Your task to perform on an android device: toggle location history Image 0: 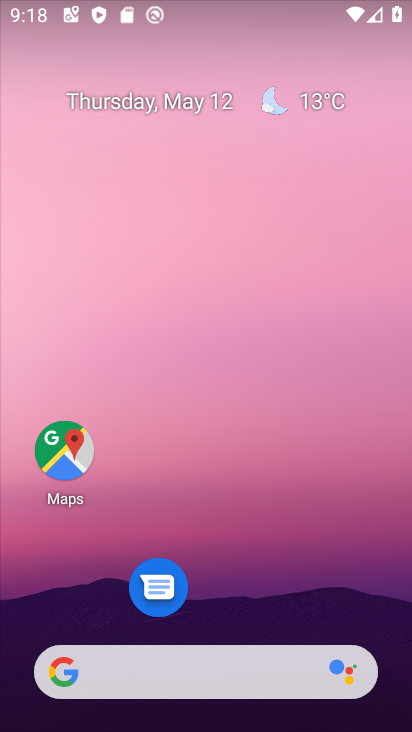
Step 0: drag from (185, 643) to (264, 78)
Your task to perform on an android device: toggle location history Image 1: 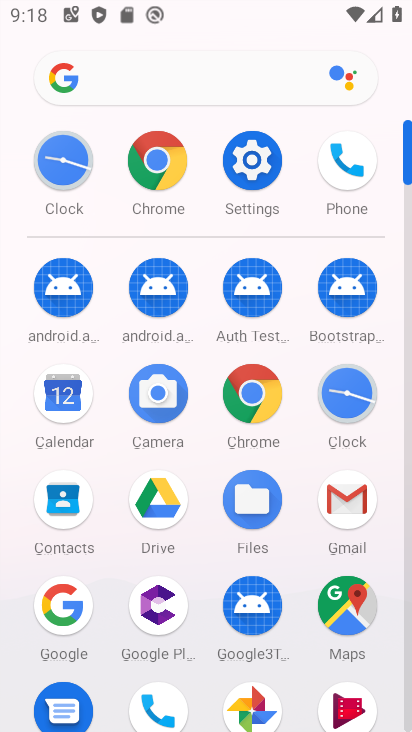
Step 1: click (260, 168)
Your task to perform on an android device: toggle location history Image 2: 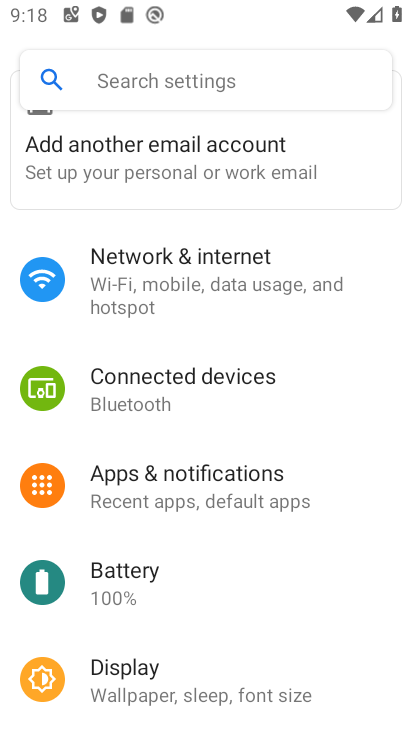
Step 2: drag from (179, 545) to (134, 169)
Your task to perform on an android device: toggle location history Image 3: 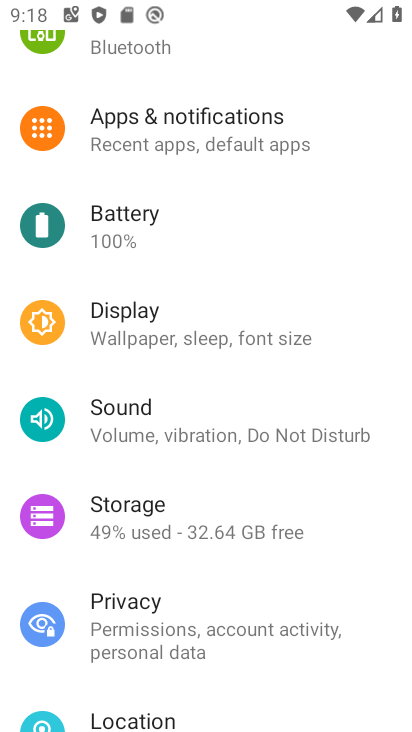
Step 3: click (161, 712)
Your task to perform on an android device: toggle location history Image 4: 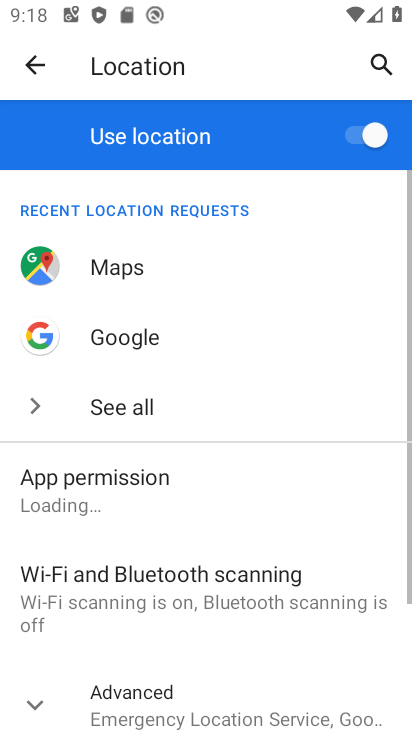
Step 4: drag from (157, 568) to (91, 91)
Your task to perform on an android device: toggle location history Image 5: 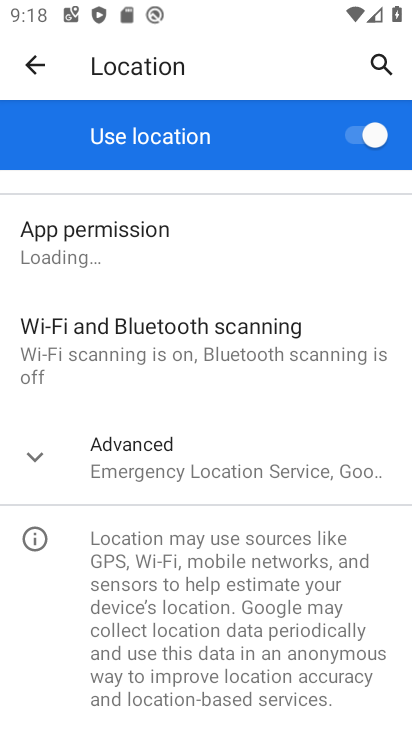
Step 5: click (117, 460)
Your task to perform on an android device: toggle location history Image 6: 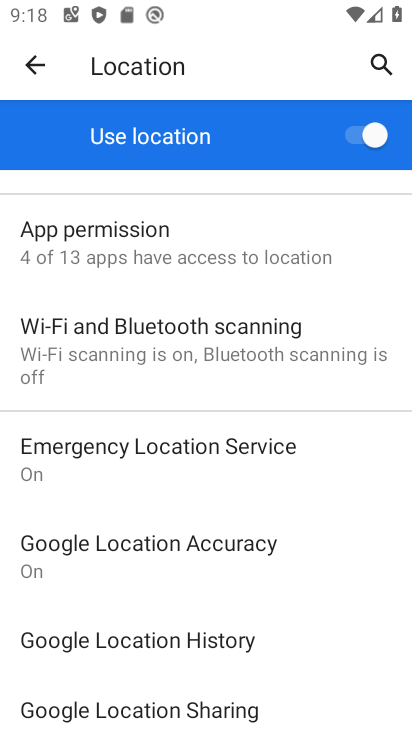
Step 6: click (179, 622)
Your task to perform on an android device: toggle location history Image 7: 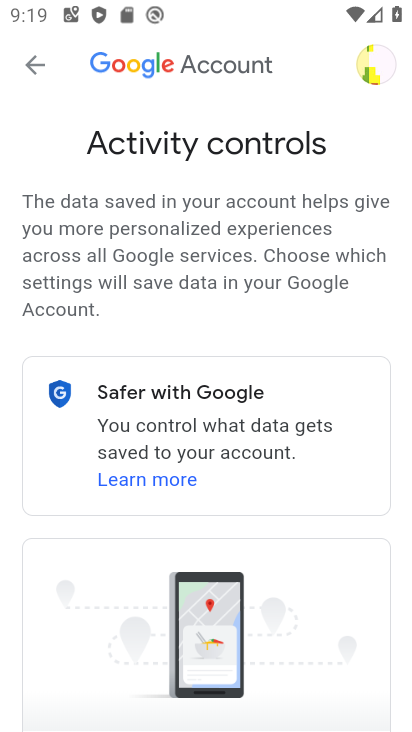
Step 7: drag from (173, 438) to (151, 14)
Your task to perform on an android device: toggle location history Image 8: 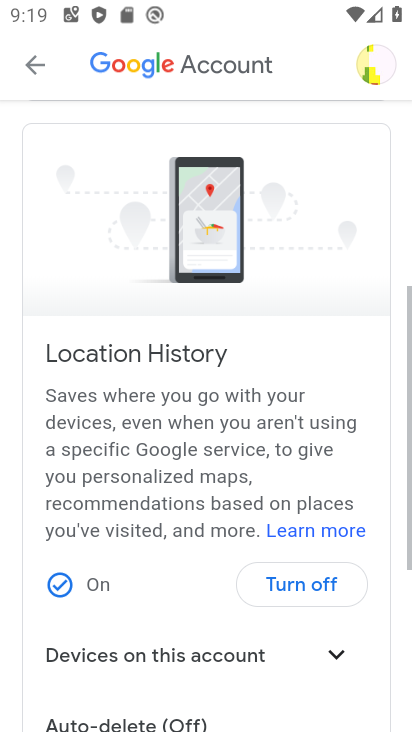
Step 8: drag from (260, 427) to (236, 120)
Your task to perform on an android device: toggle location history Image 9: 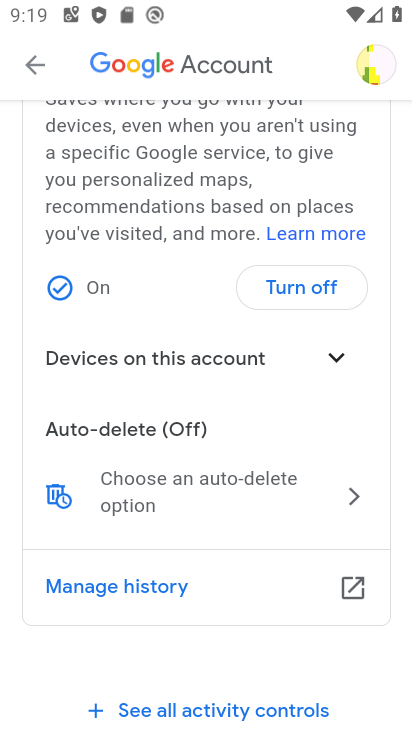
Step 9: click (270, 256)
Your task to perform on an android device: toggle location history Image 10: 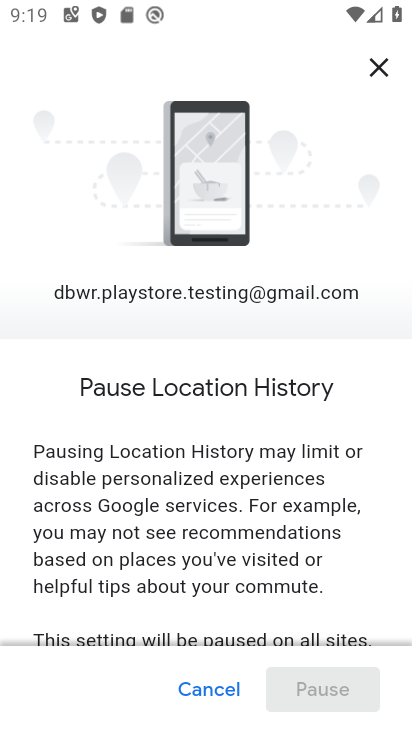
Step 10: drag from (261, 572) to (225, 2)
Your task to perform on an android device: toggle location history Image 11: 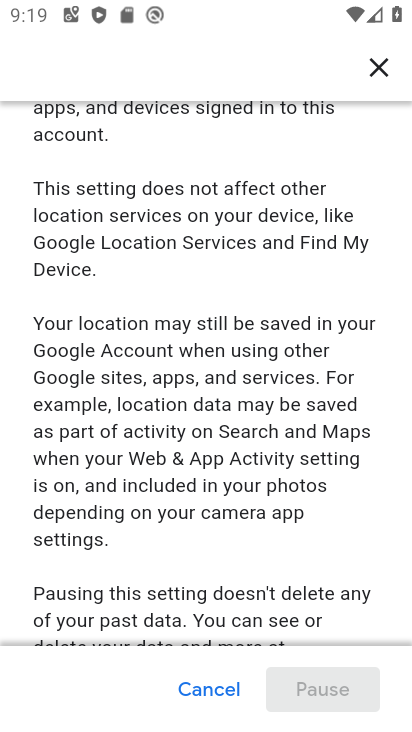
Step 11: drag from (256, 595) to (202, 1)
Your task to perform on an android device: toggle location history Image 12: 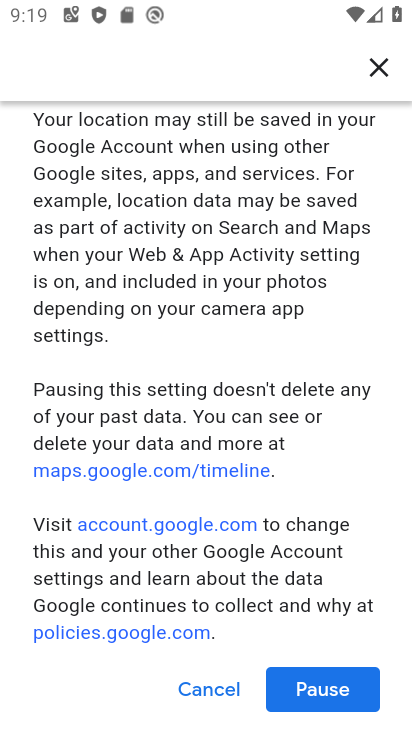
Step 12: click (335, 694)
Your task to perform on an android device: toggle location history Image 13: 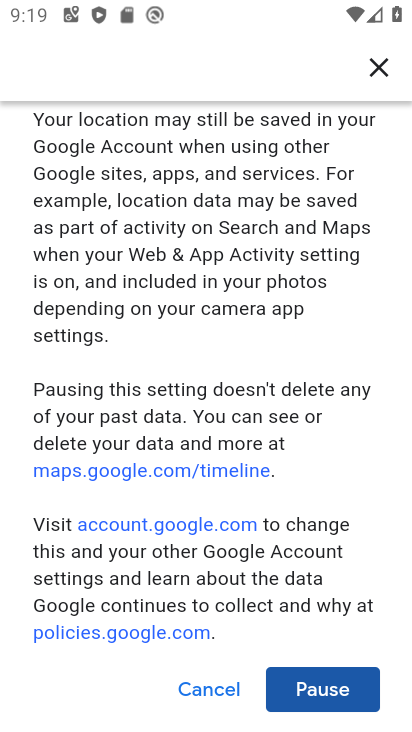
Step 13: task complete